Your task to perform on an android device: Turn off the flashlight Image 0: 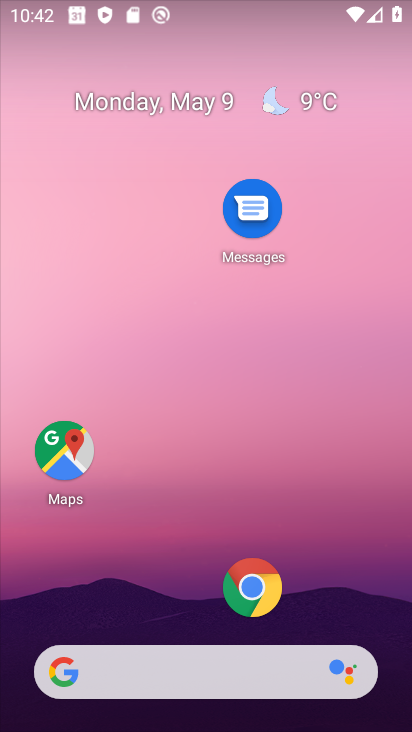
Step 0: drag from (177, 603) to (266, 144)
Your task to perform on an android device: Turn off the flashlight Image 1: 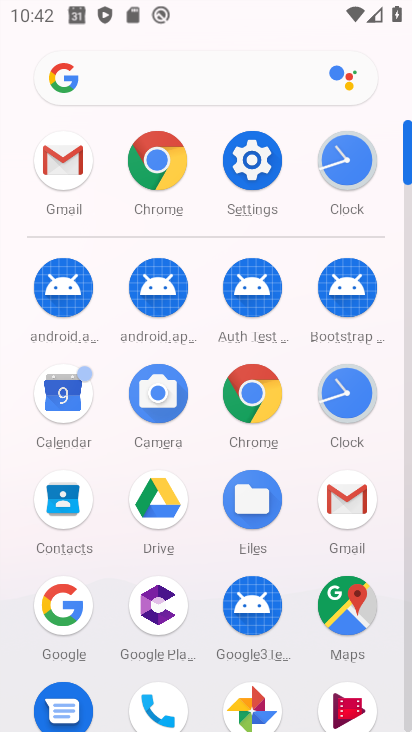
Step 1: click (237, 150)
Your task to perform on an android device: Turn off the flashlight Image 2: 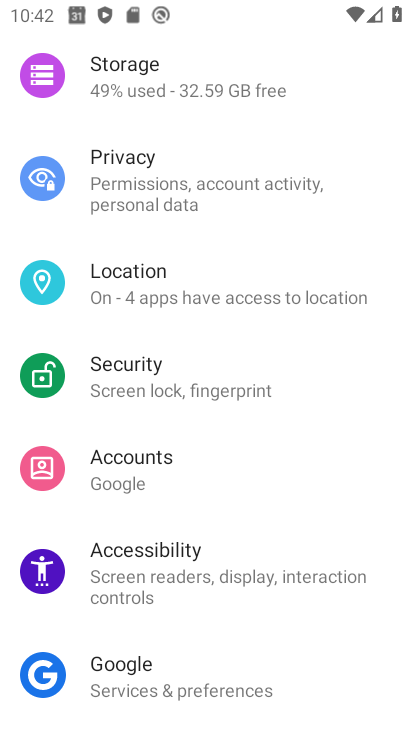
Step 2: drag from (194, 77) to (298, 683)
Your task to perform on an android device: Turn off the flashlight Image 3: 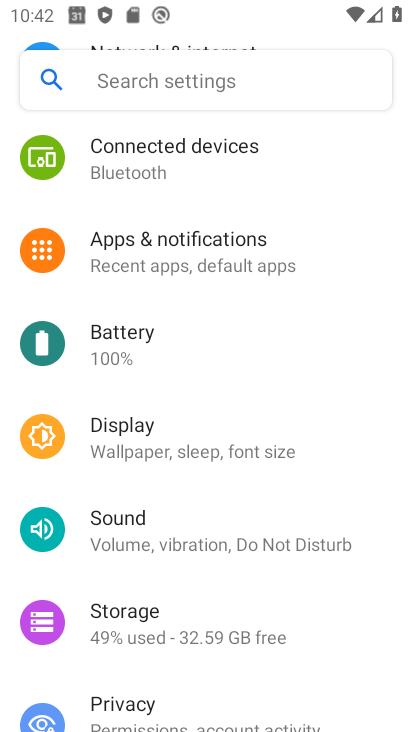
Step 3: click (194, 91)
Your task to perform on an android device: Turn off the flashlight Image 4: 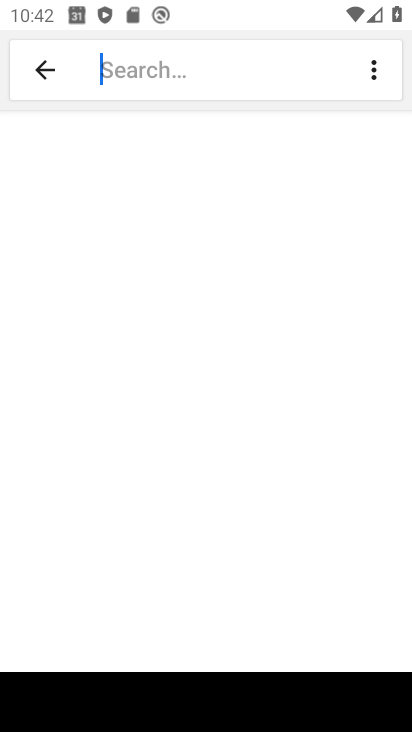
Step 4: type "flashlight"
Your task to perform on an android device: Turn off the flashlight Image 5: 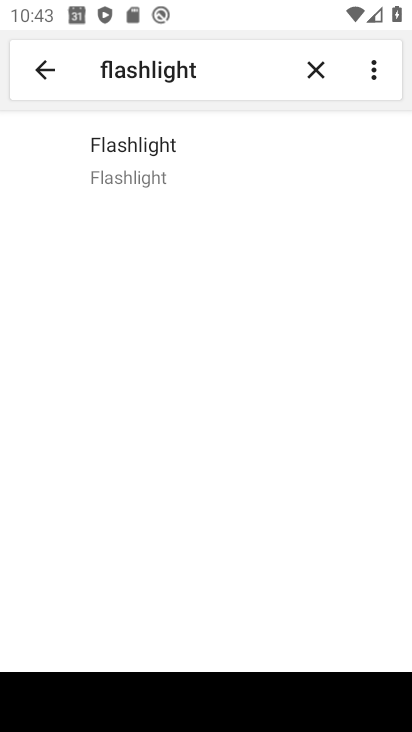
Step 5: click (217, 161)
Your task to perform on an android device: Turn off the flashlight Image 6: 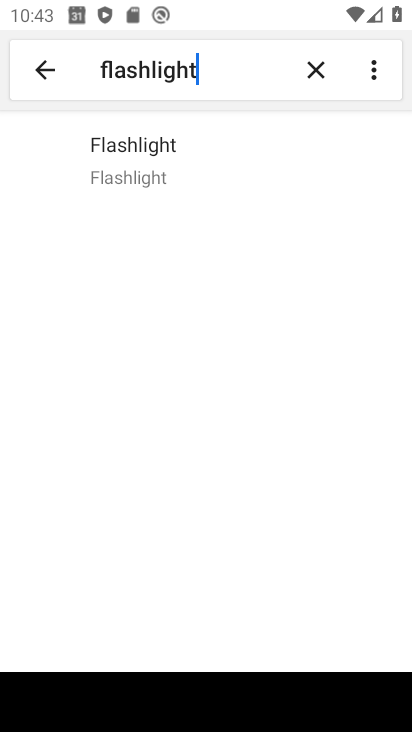
Step 6: task complete